Your task to perform on an android device: stop showing notifications on the lock screen Image 0: 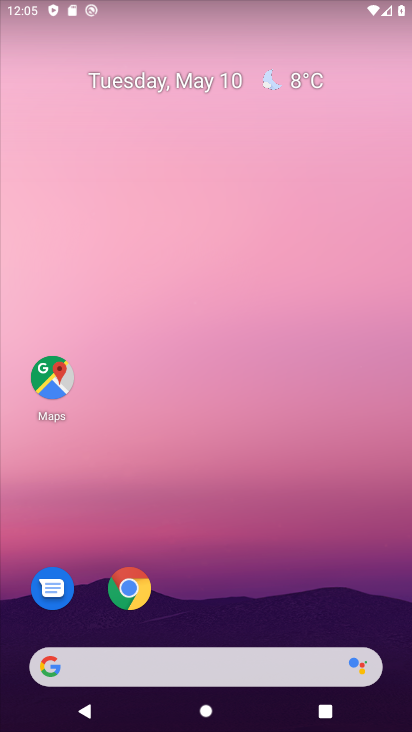
Step 0: drag from (219, 638) to (332, 69)
Your task to perform on an android device: stop showing notifications on the lock screen Image 1: 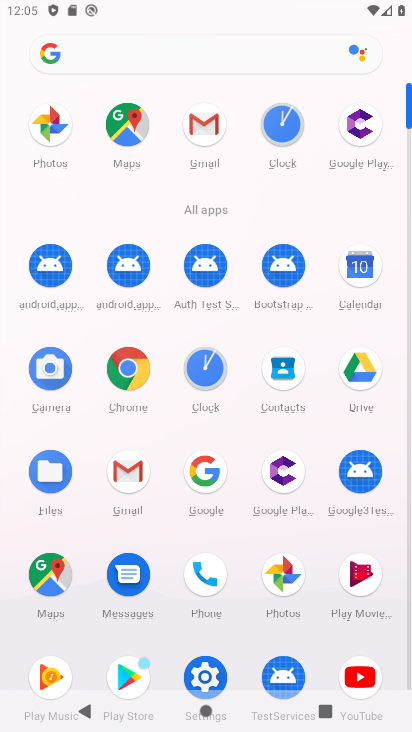
Step 1: click (218, 673)
Your task to perform on an android device: stop showing notifications on the lock screen Image 2: 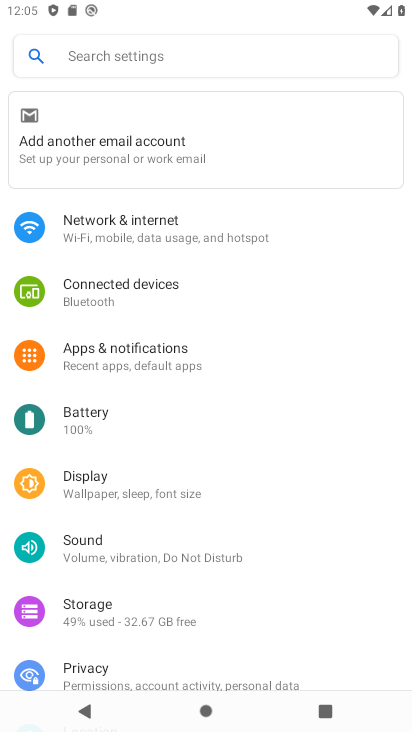
Step 2: click (170, 361)
Your task to perform on an android device: stop showing notifications on the lock screen Image 3: 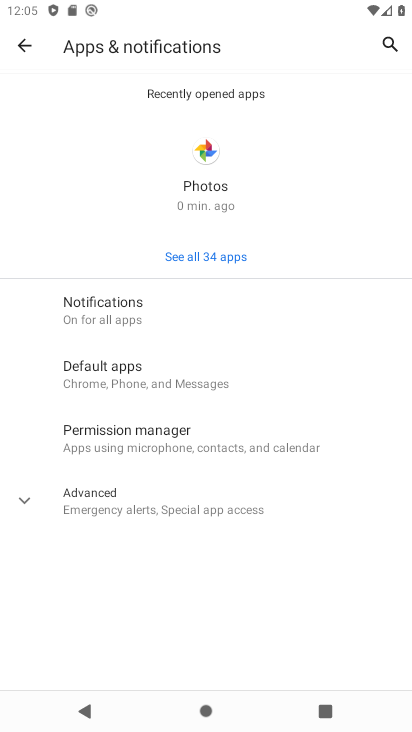
Step 3: click (142, 317)
Your task to perform on an android device: stop showing notifications on the lock screen Image 4: 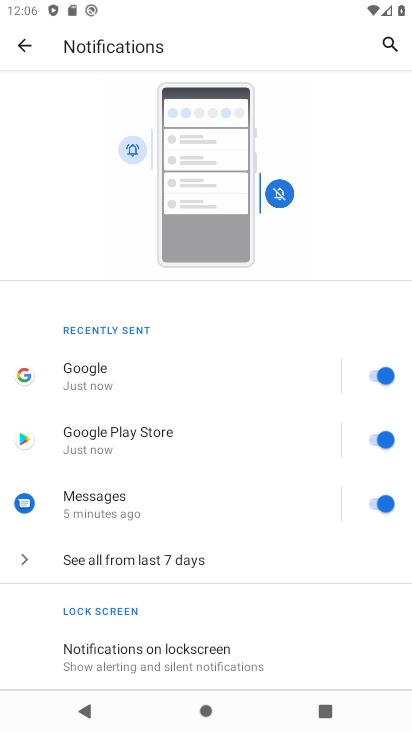
Step 4: click (177, 650)
Your task to perform on an android device: stop showing notifications on the lock screen Image 5: 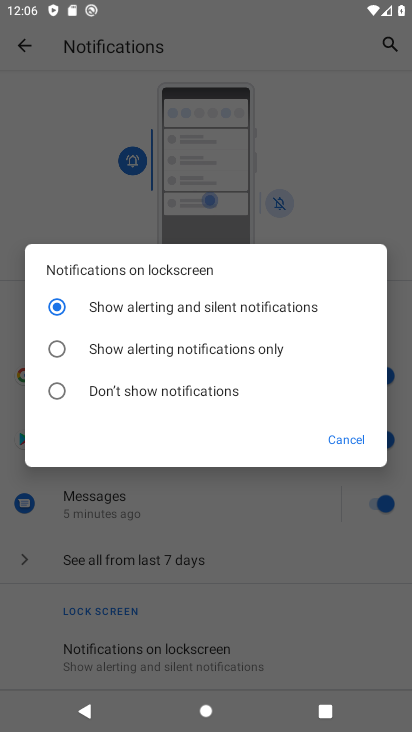
Step 5: click (227, 382)
Your task to perform on an android device: stop showing notifications on the lock screen Image 6: 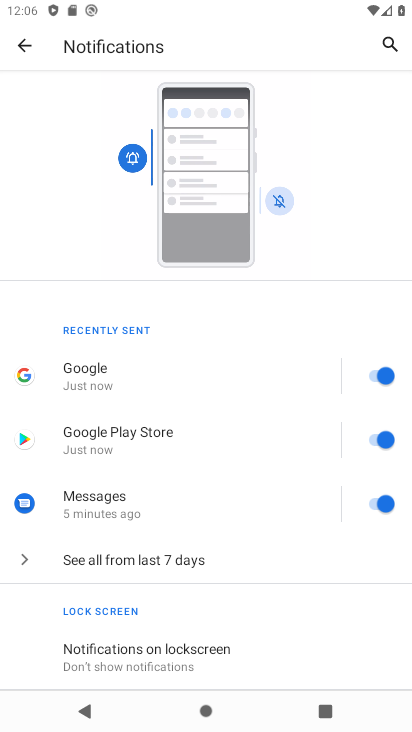
Step 6: task complete